Your task to perform on an android device: turn off data saver in the chrome app Image 0: 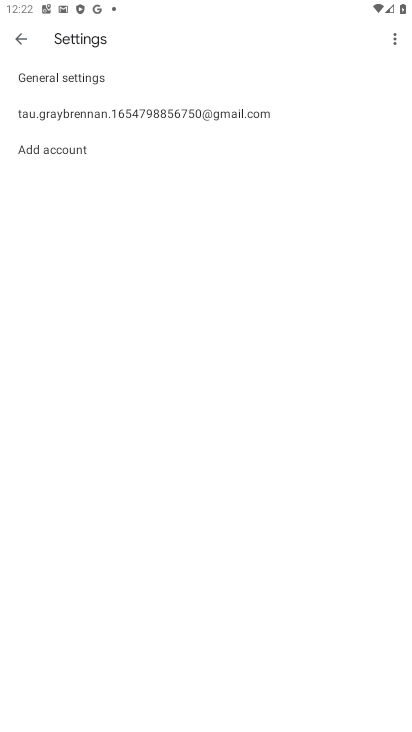
Step 0: press home button
Your task to perform on an android device: turn off data saver in the chrome app Image 1: 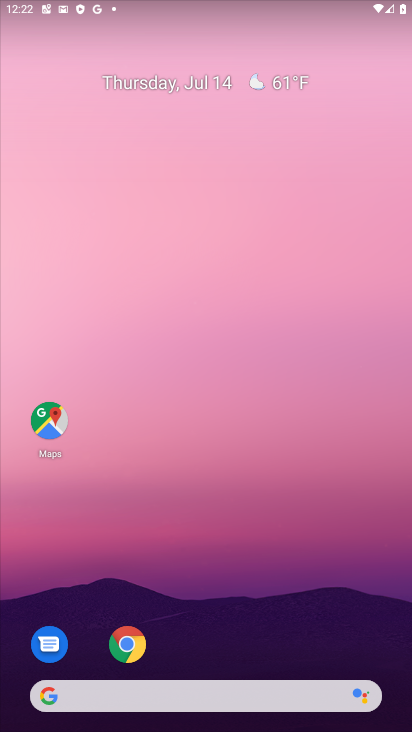
Step 1: click (139, 641)
Your task to perform on an android device: turn off data saver in the chrome app Image 2: 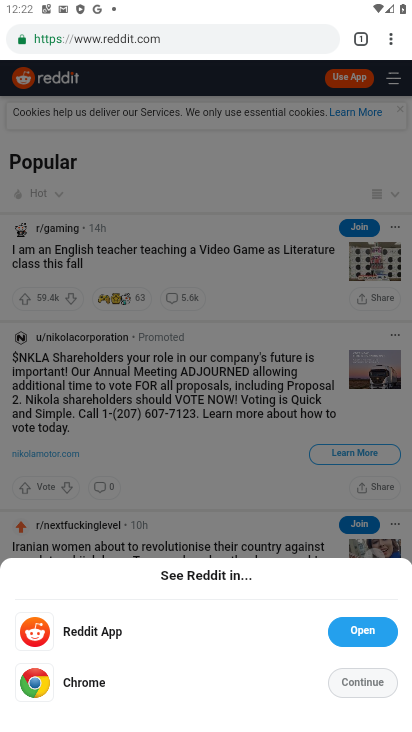
Step 2: click (394, 41)
Your task to perform on an android device: turn off data saver in the chrome app Image 3: 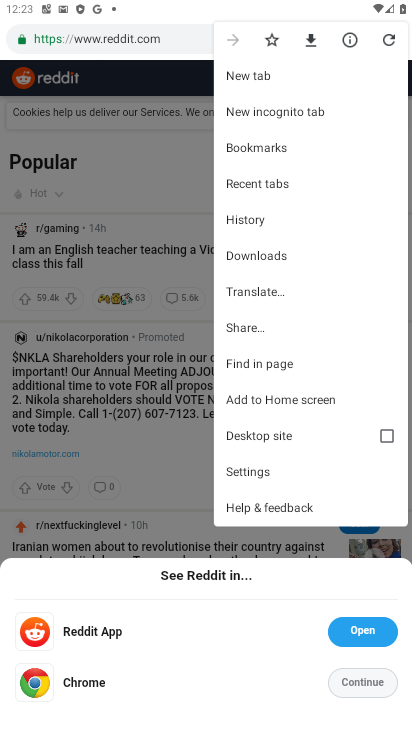
Step 3: click (243, 464)
Your task to perform on an android device: turn off data saver in the chrome app Image 4: 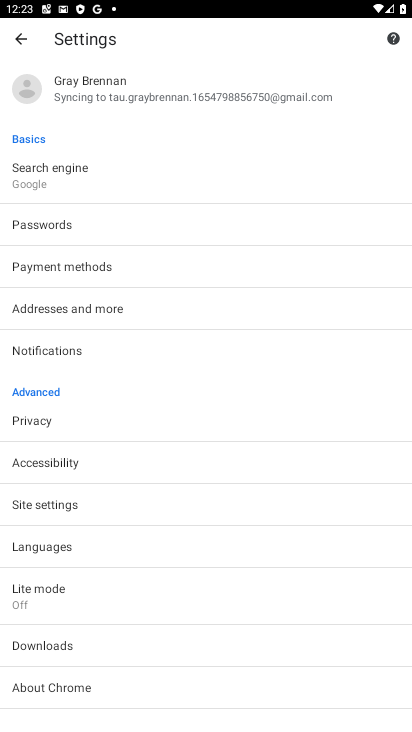
Step 4: click (66, 606)
Your task to perform on an android device: turn off data saver in the chrome app Image 5: 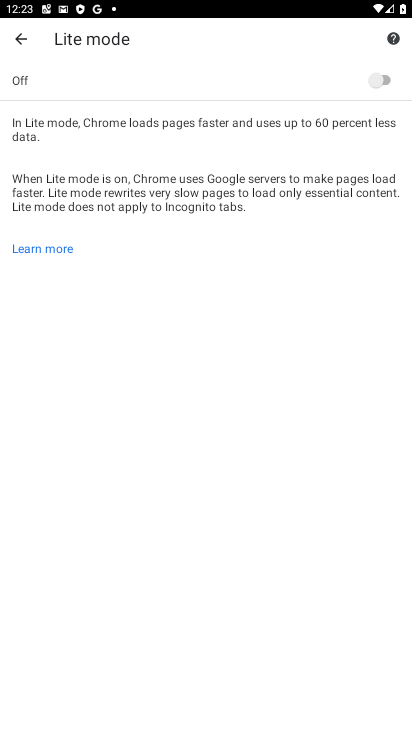
Step 5: task complete